Your task to perform on an android device: Open Amazon Image 0: 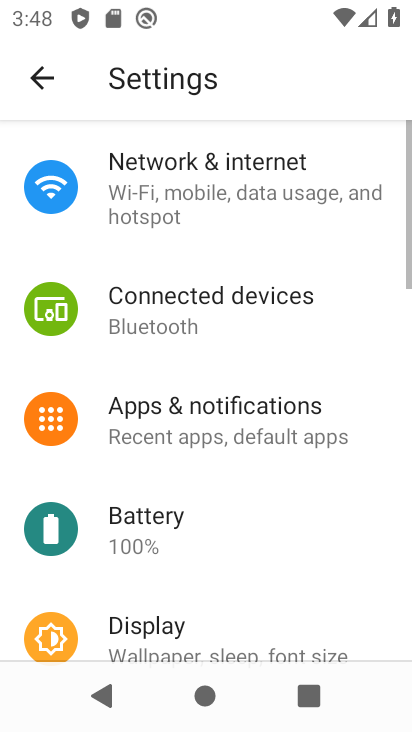
Step 0: press home button
Your task to perform on an android device: Open Amazon Image 1: 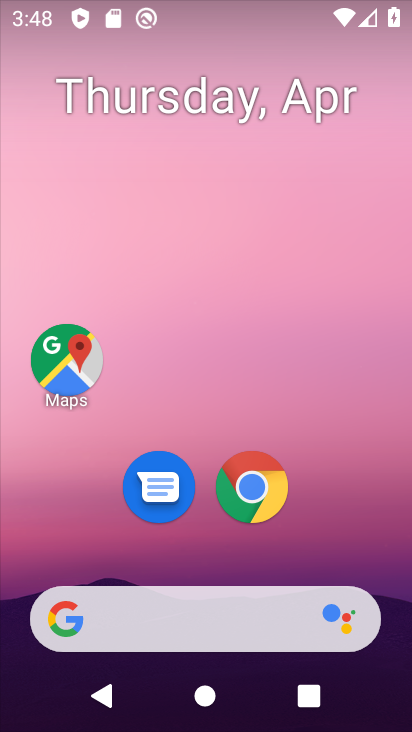
Step 1: click (241, 492)
Your task to perform on an android device: Open Amazon Image 2: 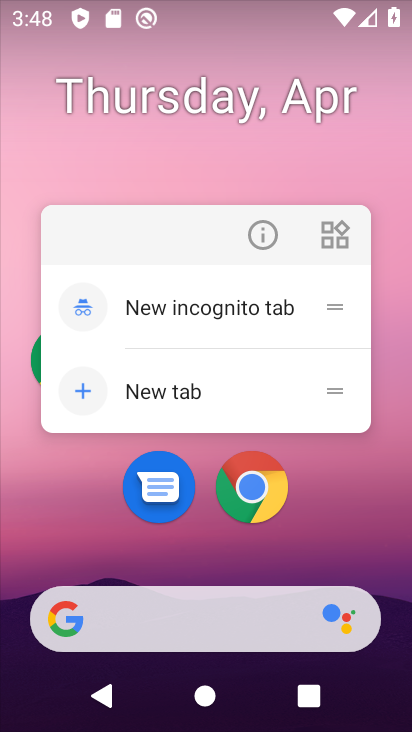
Step 2: click (241, 492)
Your task to perform on an android device: Open Amazon Image 3: 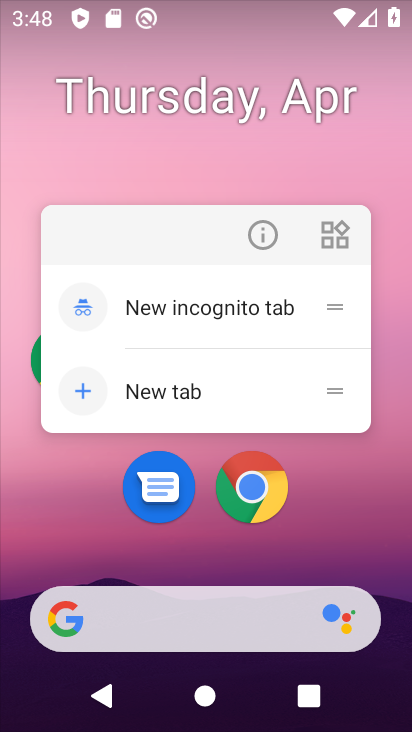
Step 3: click (241, 492)
Your task to perform on an android device: Open Amazon Image 4: 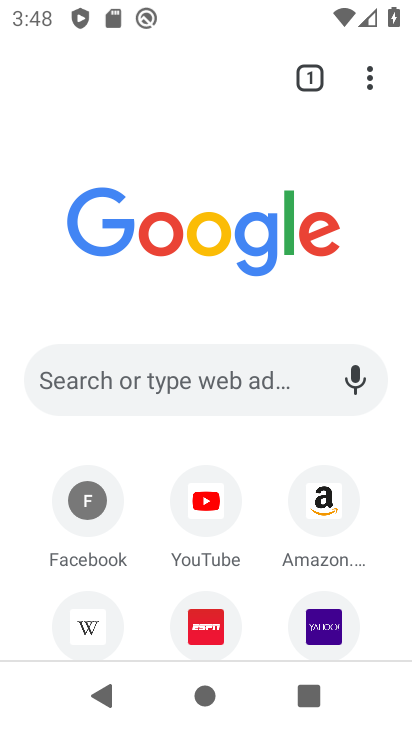
Step 4: click (329, 510)
Your task to perform on an android device: Open Amazon Image 5: 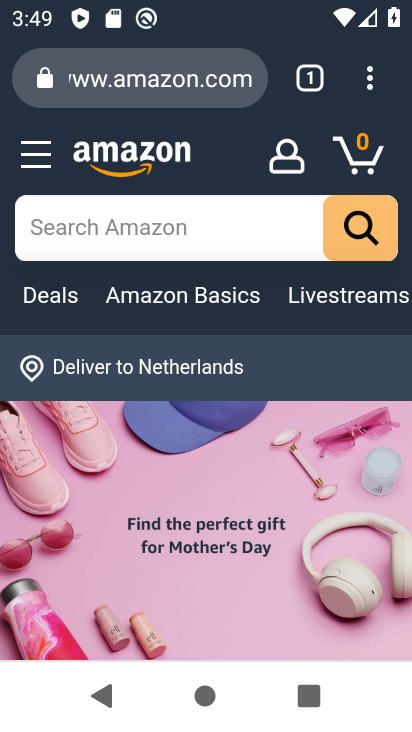
Step 5: task complete